Your task to perform on an android device: Check the news Image 0: 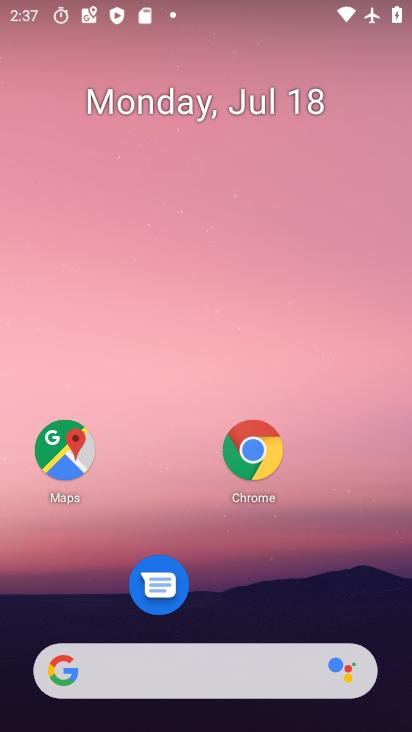
Step 0: click (169, 677)
Your task to perform on an android device: Check the news Image 1: 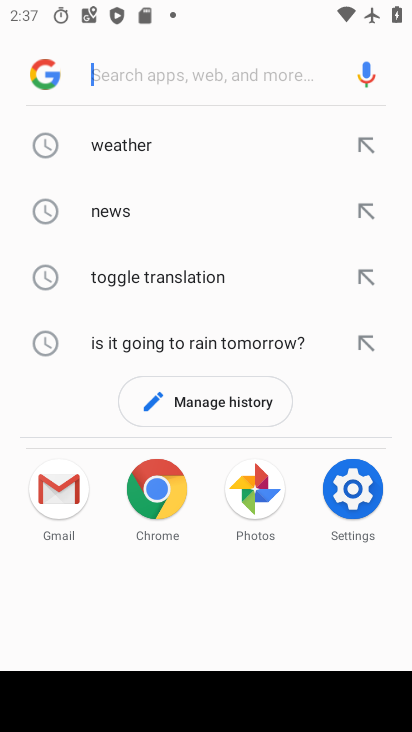
Step 1: click (121, 212)
Your task to perform on an android device: Check the news Image 2: 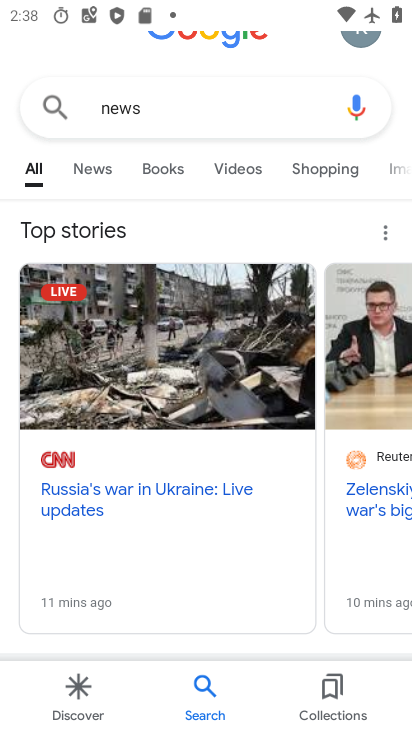
Step 2: click (101, 167)
Your task to perform on an android device: Check the news Image 3: 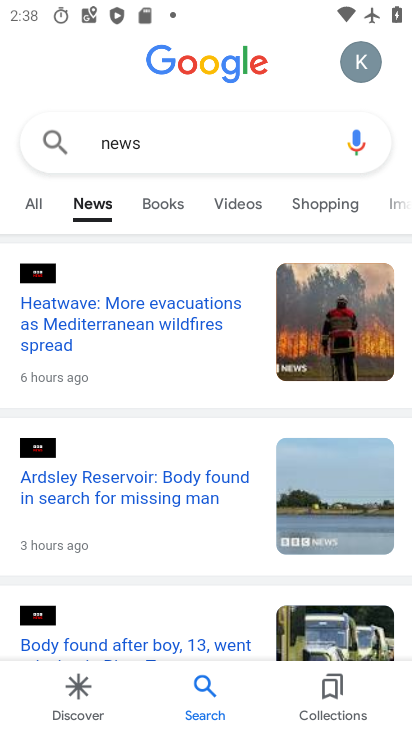
Step 3: task complete